Your task to perform on an android device: move a message to another label in the gmail app Image 0: 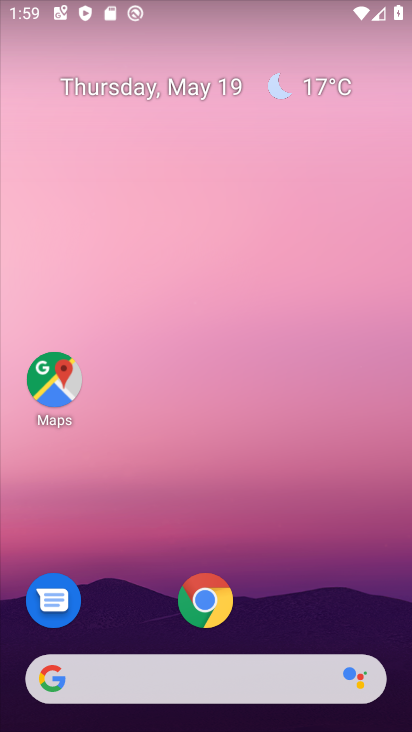
Step 0: drag from (333, 616) to (300, 54)
Your task to perform on an android device: move a message to another label in the gmail app Image 1: 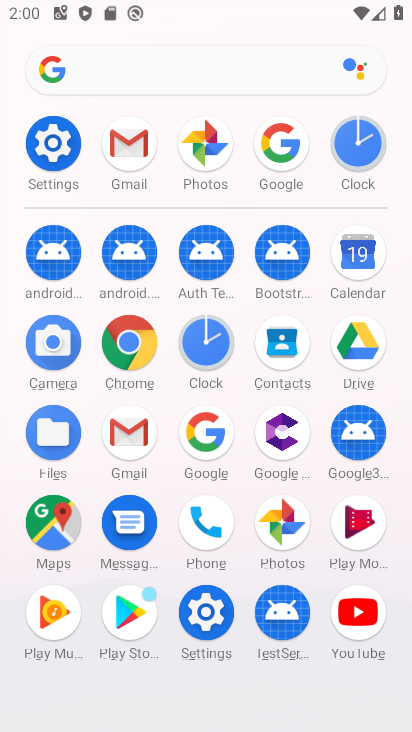
Step 1: click (135, 451)
Your task to perform on an android device: move a message to another label in the gmail app Image 2: 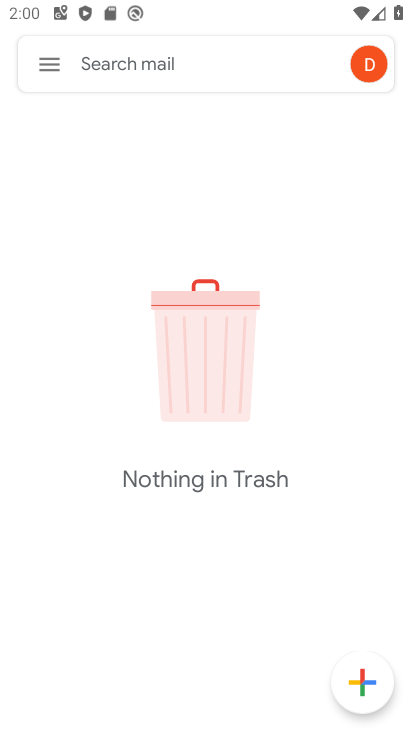
Step 2: click (48, 75)
Your task to perform on an android device: move a message to another label in the gmail app Image 3: 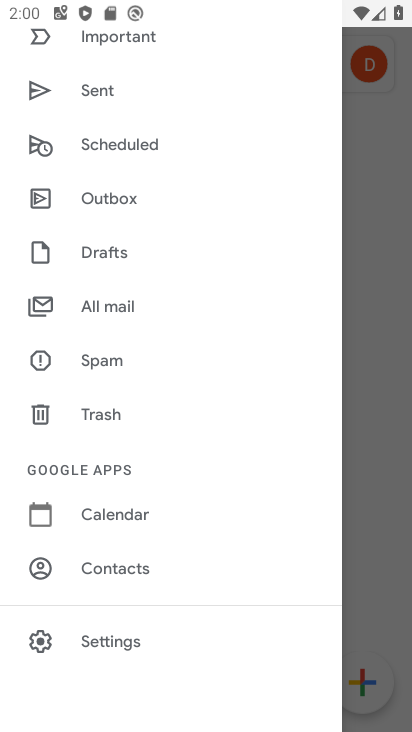
Step 3: click (123, 308)
Your task to perform on an android device: move a message to another label in the gmail app Image 4: 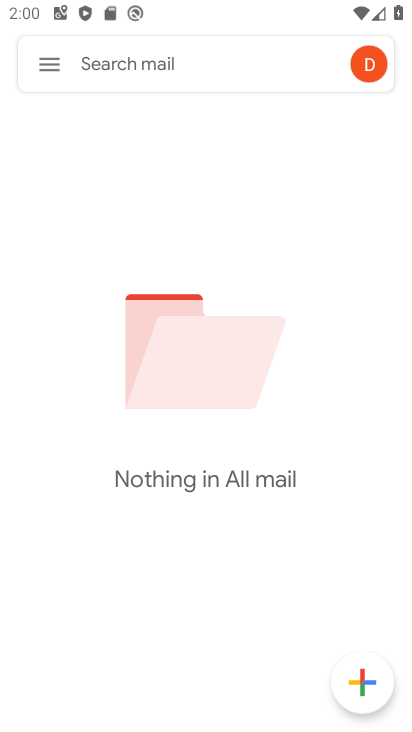
Step 4: task complete